Your task to perform on an android device: toggle airplane mode Image 0: 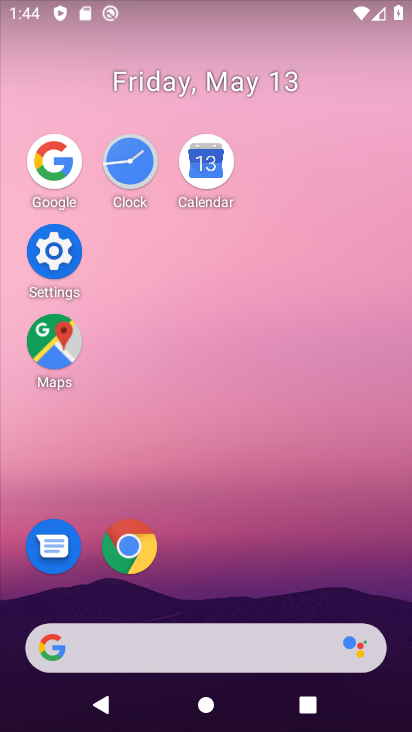
Step 0: click (58, 263)
Your task to perform on an android device: toggle airplane mode Image 1: 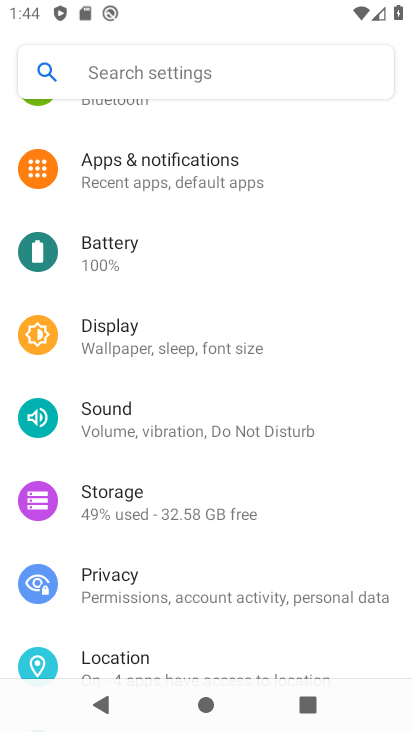
Step 1: drag from (279, 203) to (291, 505)
Your task to perform on an android device: toggle airplane mode Image 2: 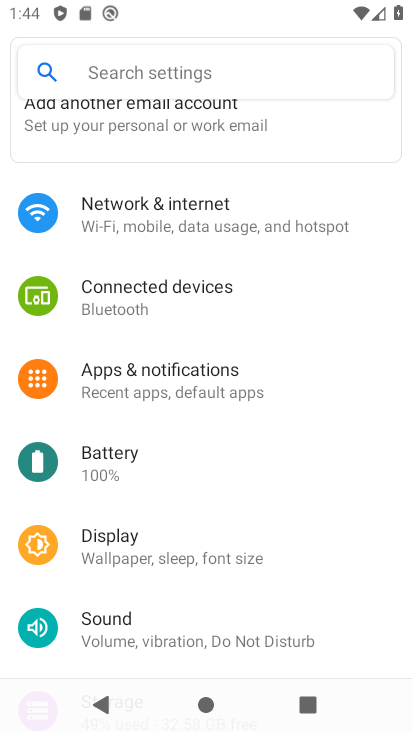
Step 2: click (249, 178)
Your task to perform on an android device: toggle airplane mode Image 3: 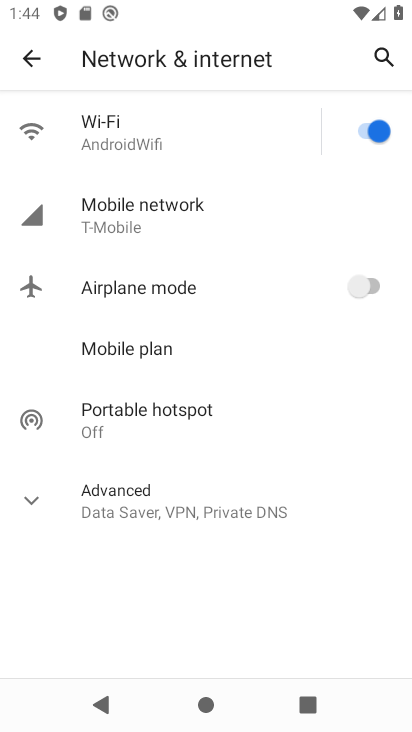
Step 3: click (347, 294)
Your task to perform on an android device: toggle airplane mode Image 4: 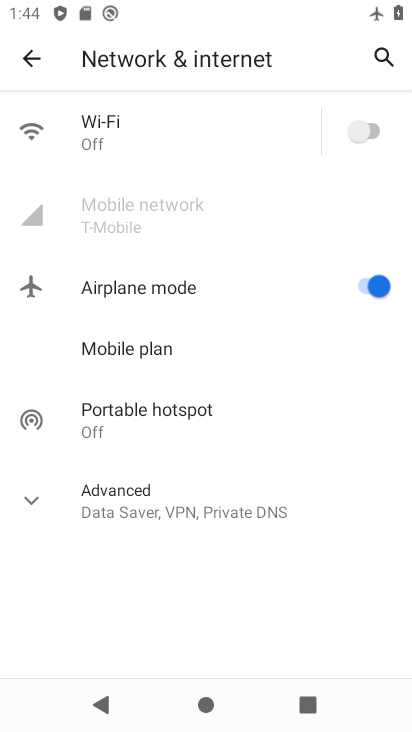
Step 4: task complete